Your task to perform on an android device: Open CNN.com Image 0: 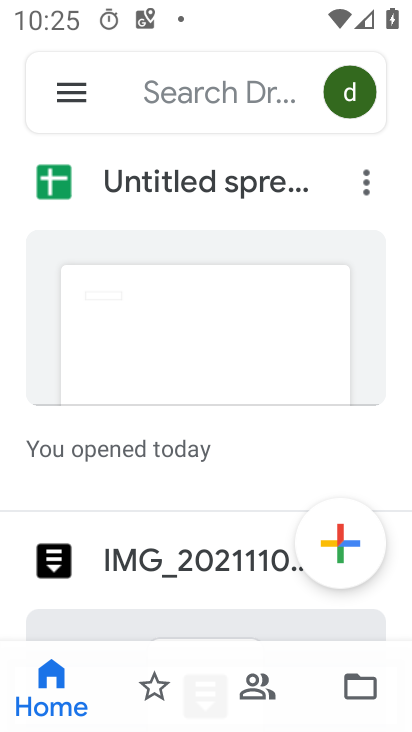
Step 0: press home button
Your task to perform on an android device: Open CNN.com Image 1: 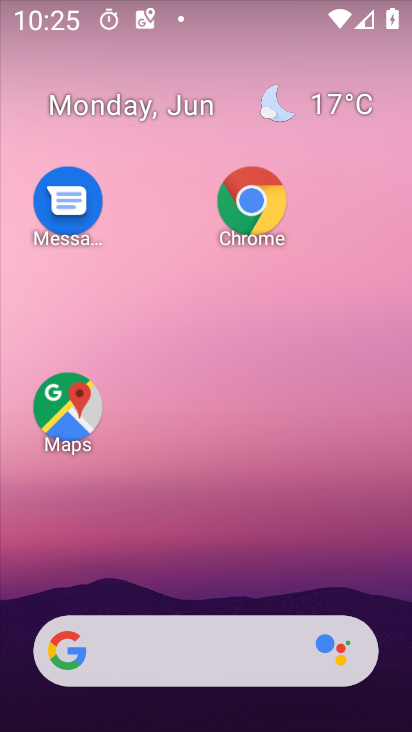
Step 1: drag from (203, 592) to (257, 60)
Your task to perform on an android device: Open CNN.com Image 2: 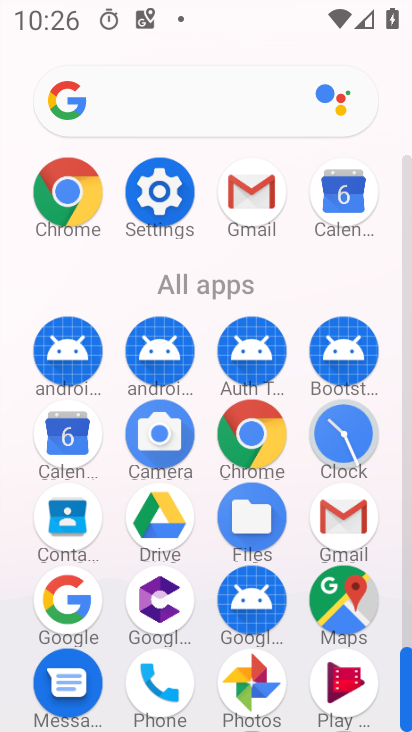
Step 2: click (274, 443)
Your task to perform on an android device: Open CNN.com Image 3: 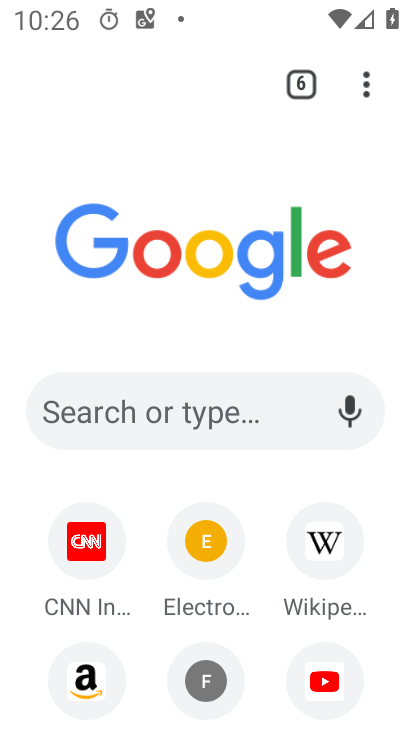
Step 3: click (95, 561)
Your task to perform on an android device: Open CNN.com Image 4: 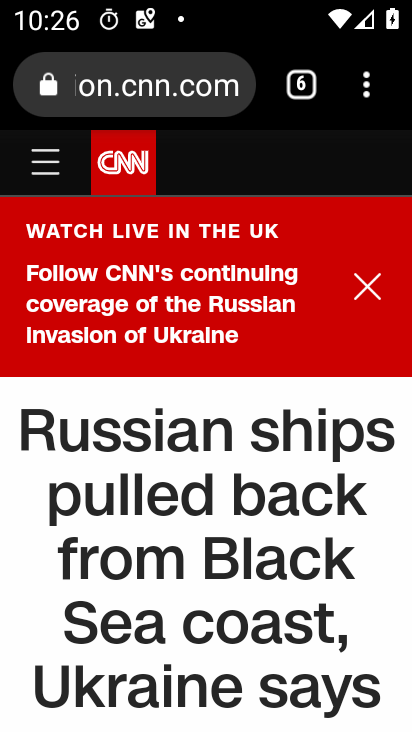
Step 4: task complete